Your task to perform on an android device: Search for Mexican restaurants on Maps Image 0: 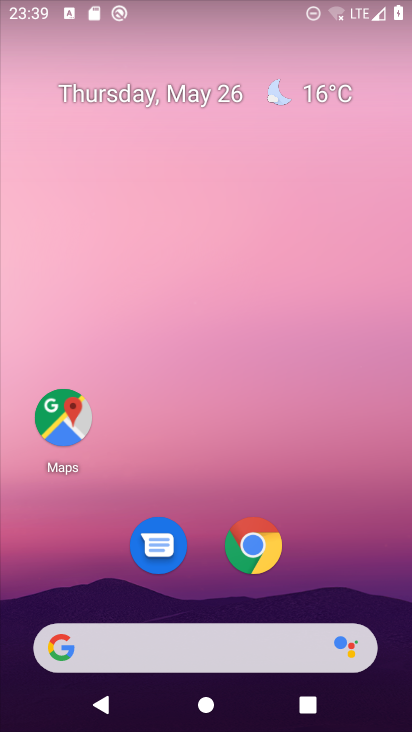
Step 0: press home button
Your task to perform on an android device: Search for Mexican restaurants on Maps Image 1: 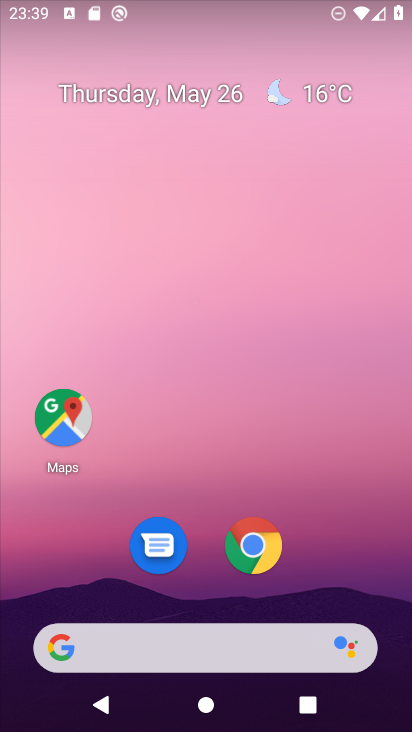
Step 1: click (59, 425)
Your task to perform on an android device: Search for Mexican restaurants on Maps Image 2: 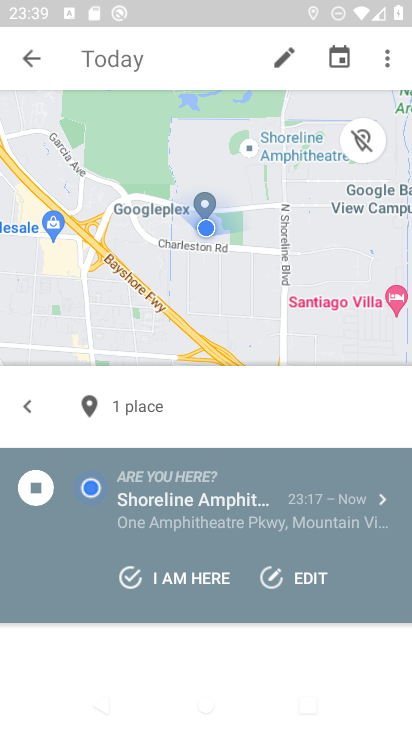
Step 2: click (209, 62)
Your task to perform on an android device: Search for Mexican restaurants on Maps Image 3: 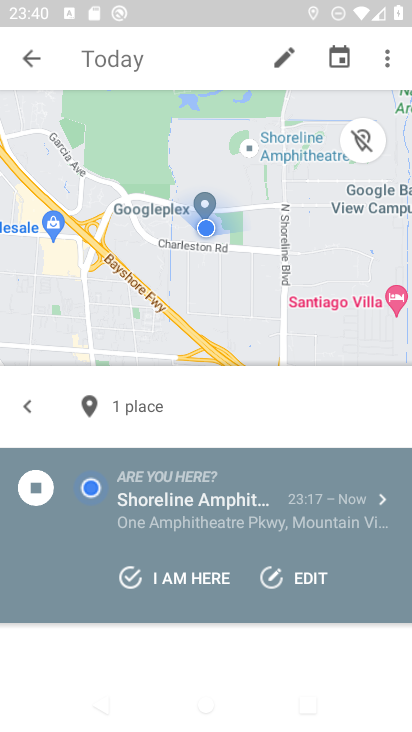
Step 3: click (25, 59)
Your task to perform on an android device: Search for Mexican restaurants on Maps Image 4: 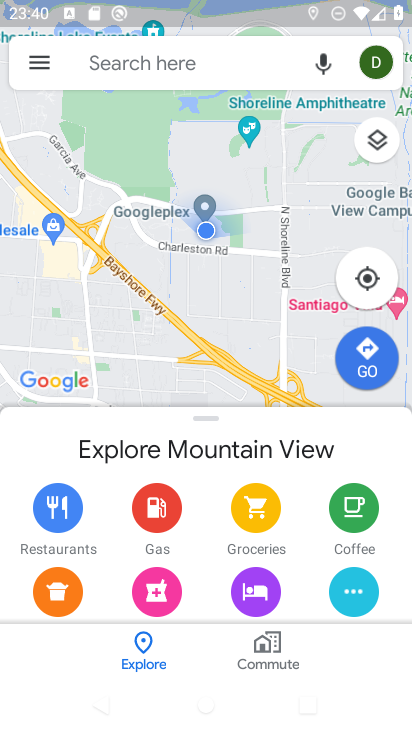
Step 4: click (223, 65)
Your task to perform on an android device: Search for Mexican restaurants on Maps Image 5: 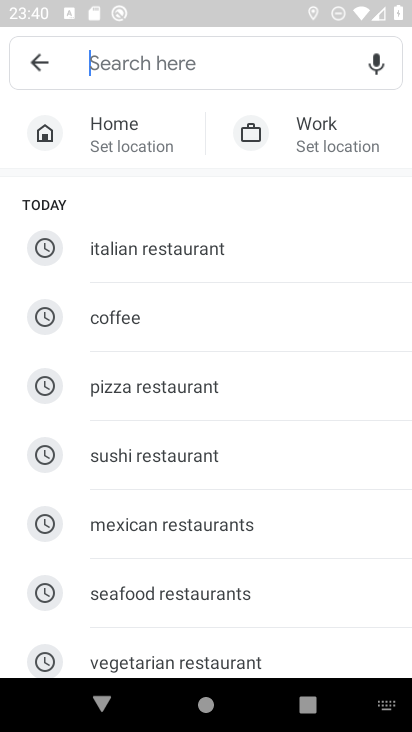
Step 5: click (191, 520)
Your task to perform on an android device: Search for Mexican restaurants on Maps Image 6: 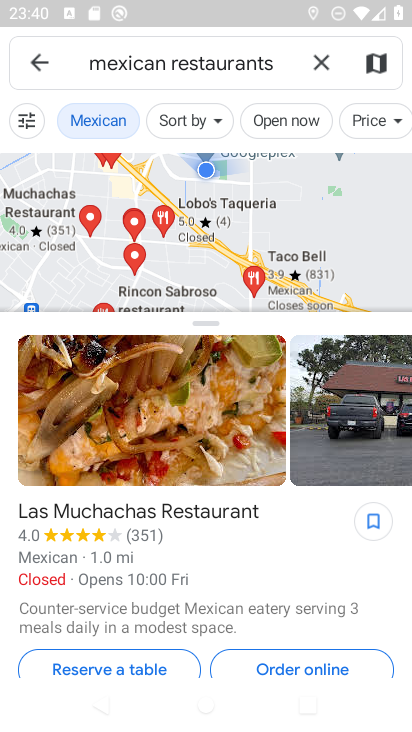
Step 6: task complete